Your task to perform on an android device: Go to wifi settings Image 0: 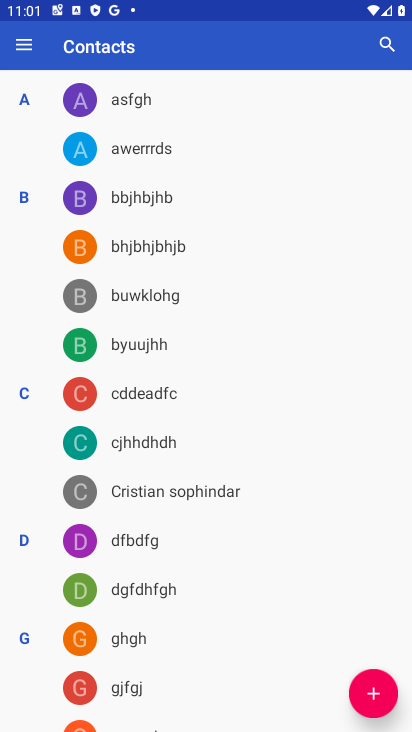
Step 0: press home button
Your task to perform on an android device: Go to wifi settings Image 1: 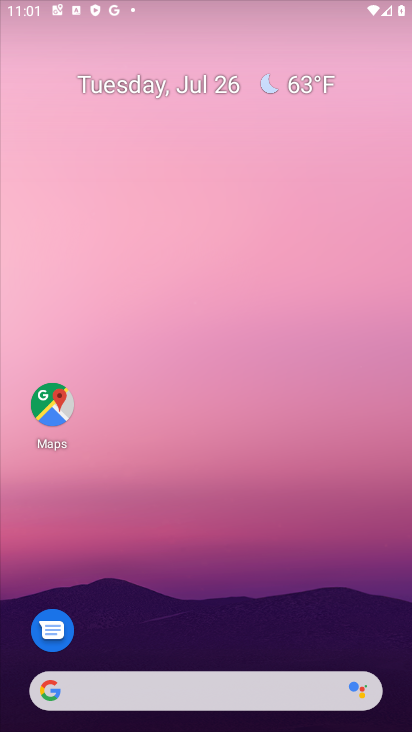
Step 1: drag from (223, 575) to (123, 6)
Your task to perform on an android device: Go to wifi settings Image 2: 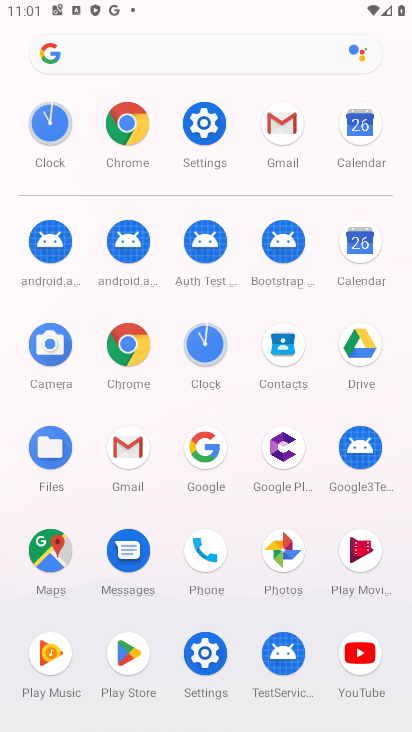
Step 2: click (209, 129)
Your task to perform on an android device: Go to wifi settings Image 3: 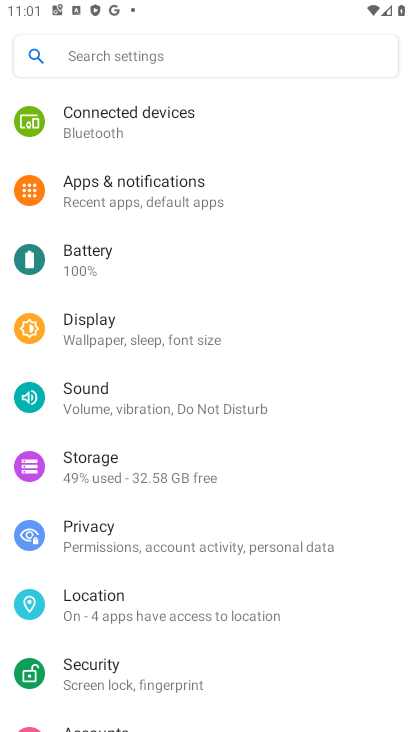
Step 3: drag from (177, 163) to (158, 628)
Your task to perform on an android device: Go to wifi settings Image 4: 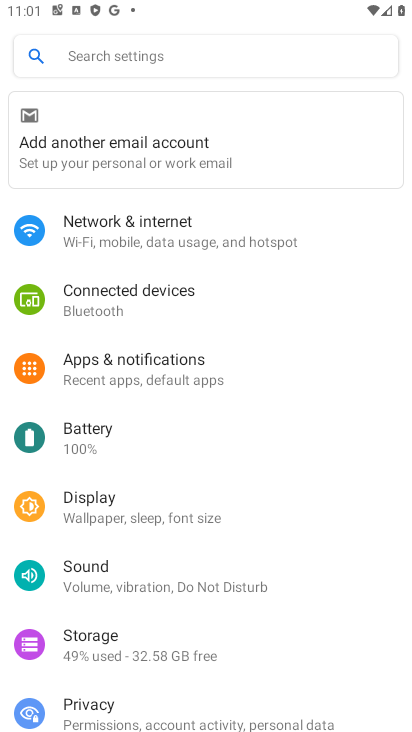
Step 4: click (157, 242)
Your task to perform on an android device: Go to wifi settings Image 5: 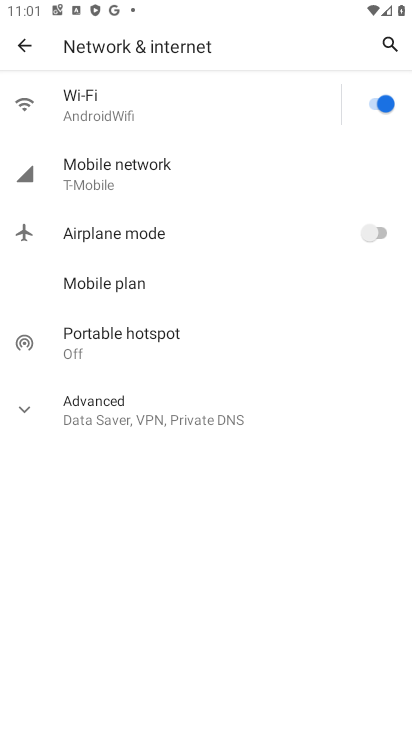
Step 5: click (122, 118)
Your task to perform on an android device: Go to wifi settings Image 6: 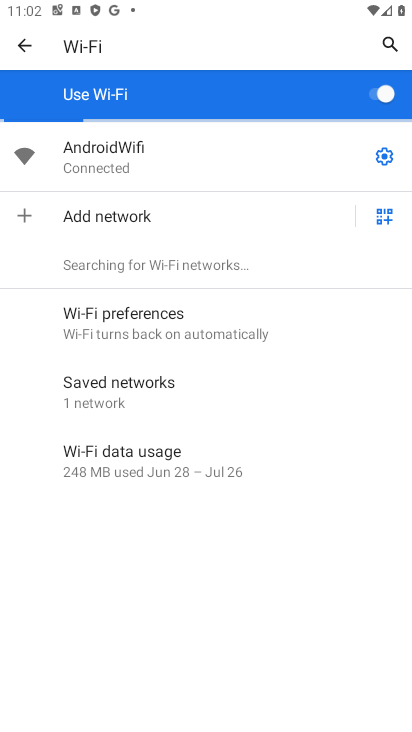
Step 6: task complete